Your task to perform on an android device: turn off airplane mode Image 0: 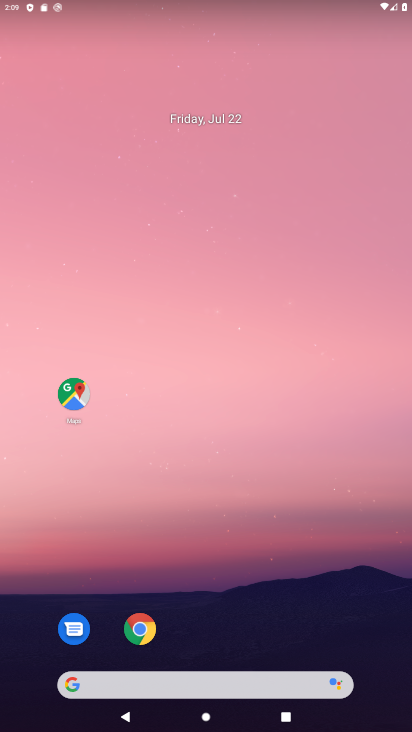
Step 0: press home button
Your task to perform on an android device: turn off airplane mode Image 1: 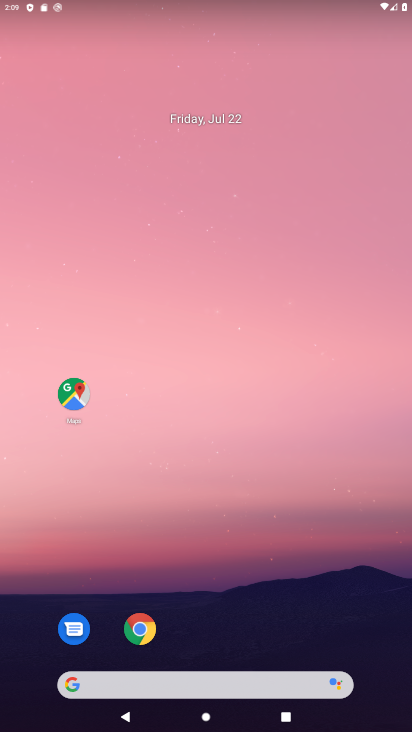
Step 1: task complete